Your task to perform on an android device: What's the weather? Image 0: 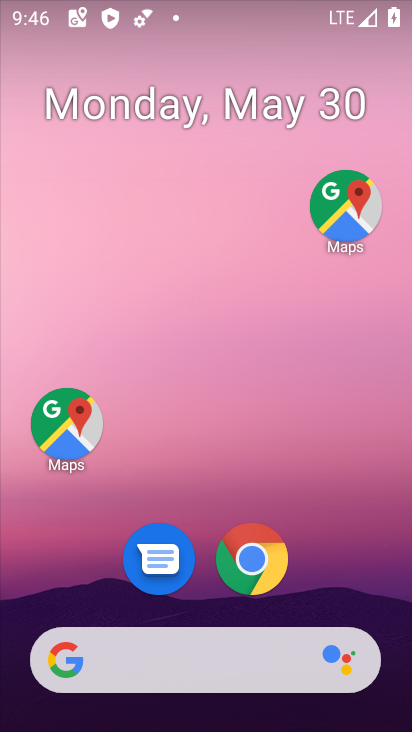
Step 0: click (261, 561)
Your task to perform on an android device: What's the weather? Image 1: 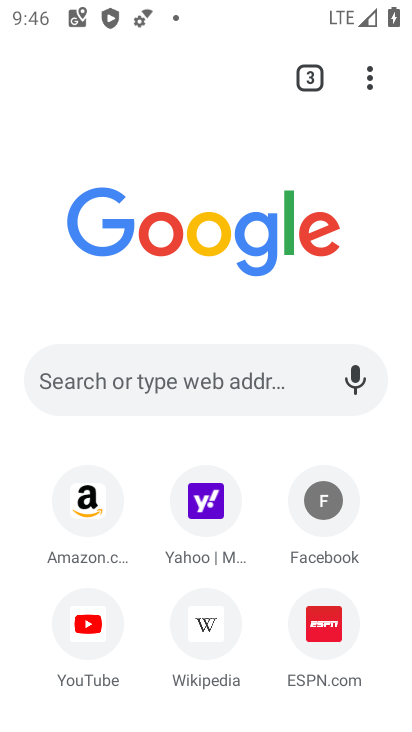
Step 1: click (226, 360)
Your task to perform on an android device: What's the weather? Image 2: 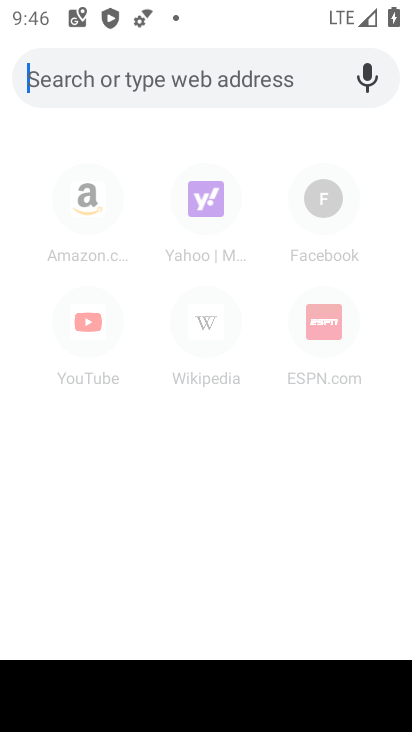
Step 2: type "weather"
Your task to perform on an android device: What's the weather? Image 3: 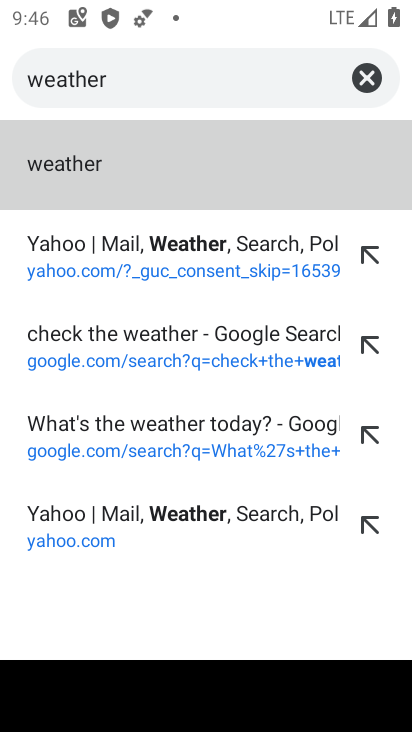
Step 3: click (121, 165)
Your task to perform on an android device: What's the weather? Image 4: 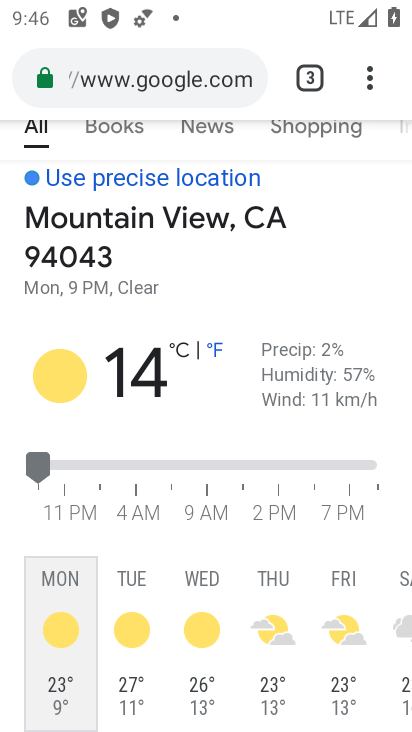
Step 4: task complete